Your task to perform on an android device: Search for "bose quietcomfort 35" on newegg, select the first entry, and add it to the cart. Image 0: 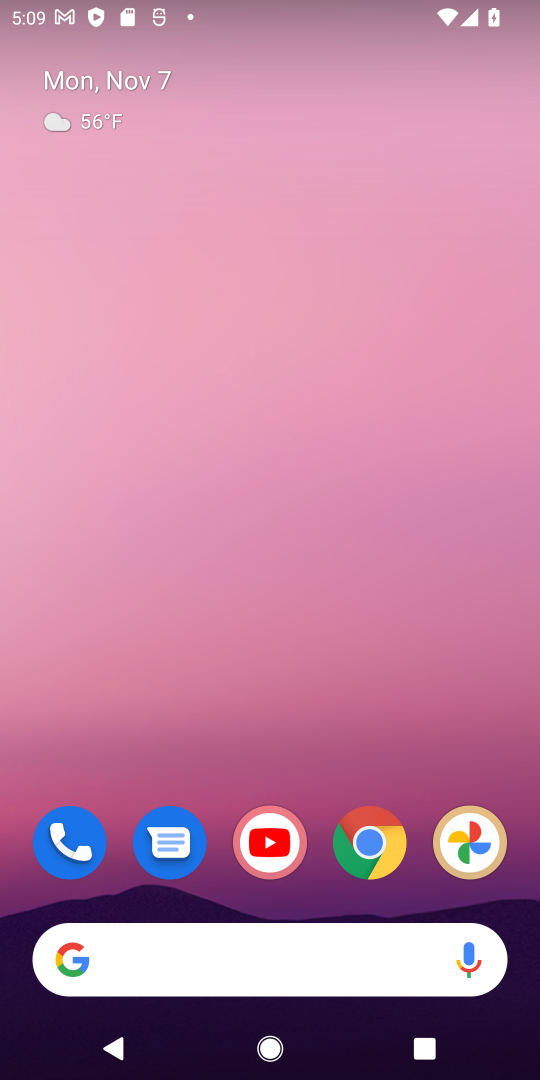
Step 0: click (374, 830)
Your task to perform on an android device: Search for "bose quietcomfort 35" on newegg, select the first entry, and add it to the cart. Image 1: 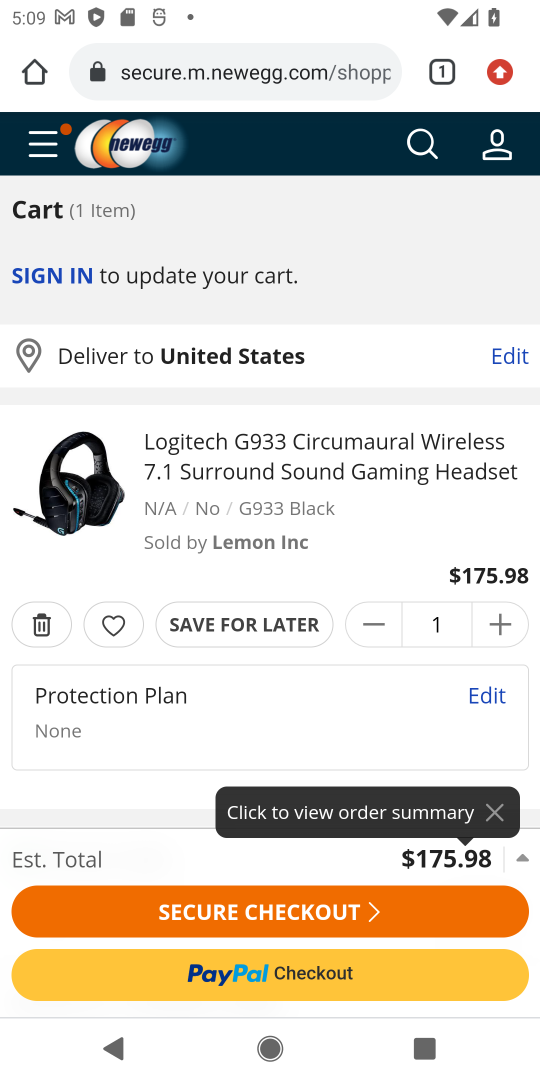
Step 1: click (276, 47)
Your task to perform on an android device: Search for "bose quietcomfort 35" on newegg, select the first entry, and add it to the cart. Image 2: 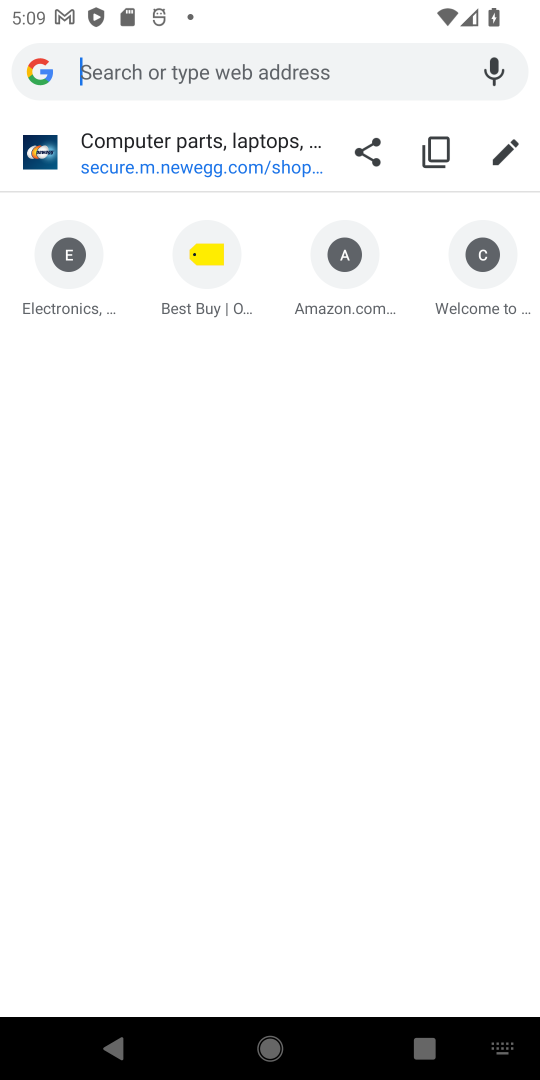
Step 2: type "newegg"
Your task to perform on an android device: Search for "bose quietcomfort 35" on newegg, select the first entry, and add it to the cart. Image 3: 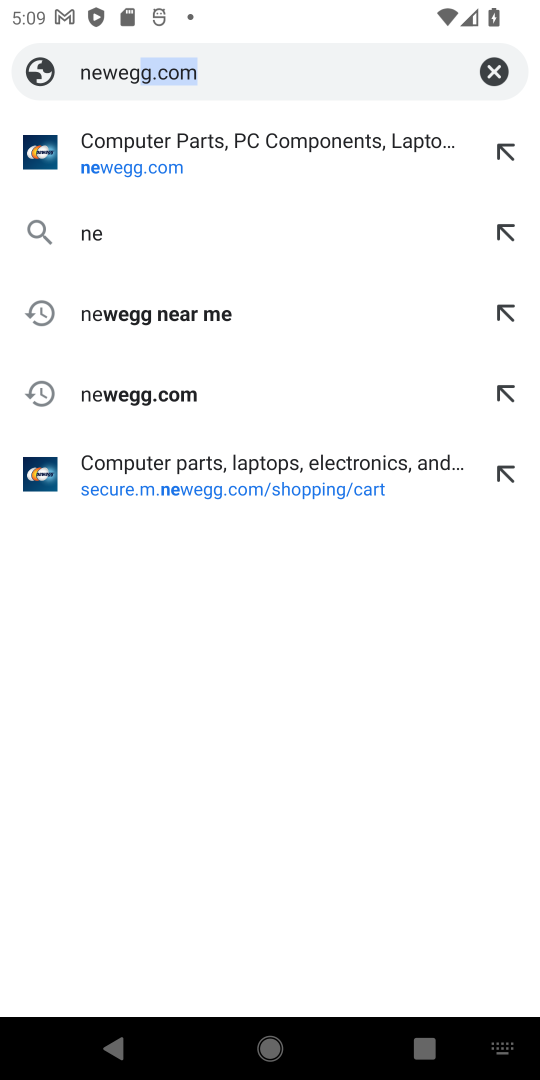
Step 3: press enter
Your task to perform on an android device: Search for "bose quietcomfort 35" on newegg, select the first entry, and add it to the cart. Image 4: 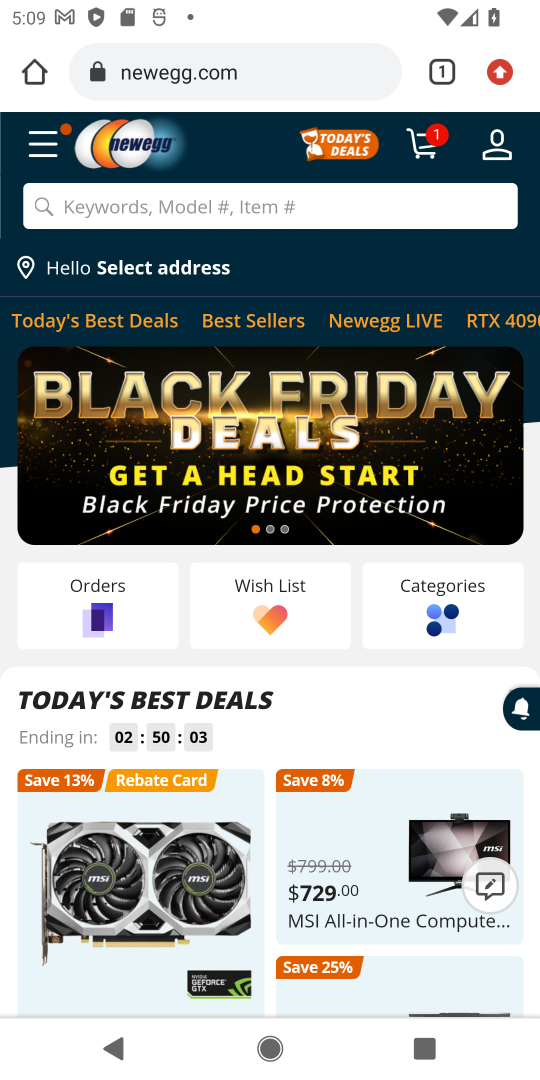
Step 4: click (164, 199)
Your task to perform on an android device: Search for "bose quietcomfort 35" on newegg, select the first entry, and add it to the cart. Image 5: 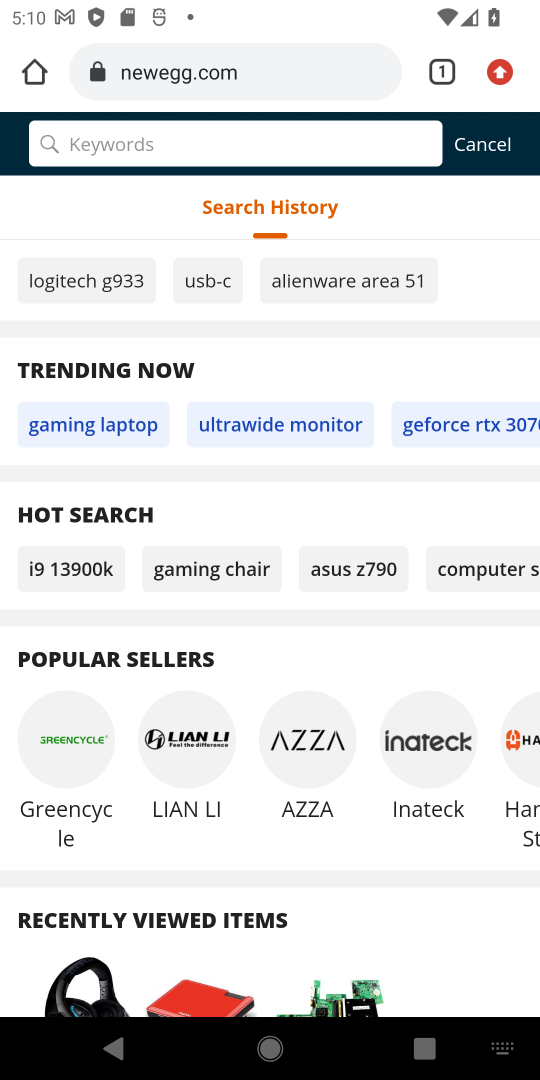
Step 5: type "bose quietcomfort 35"
Your task to perform on an android device: Search for "bose quietcomfort 35" on newegg, select the first entry, and add it to the cart. Image 6: 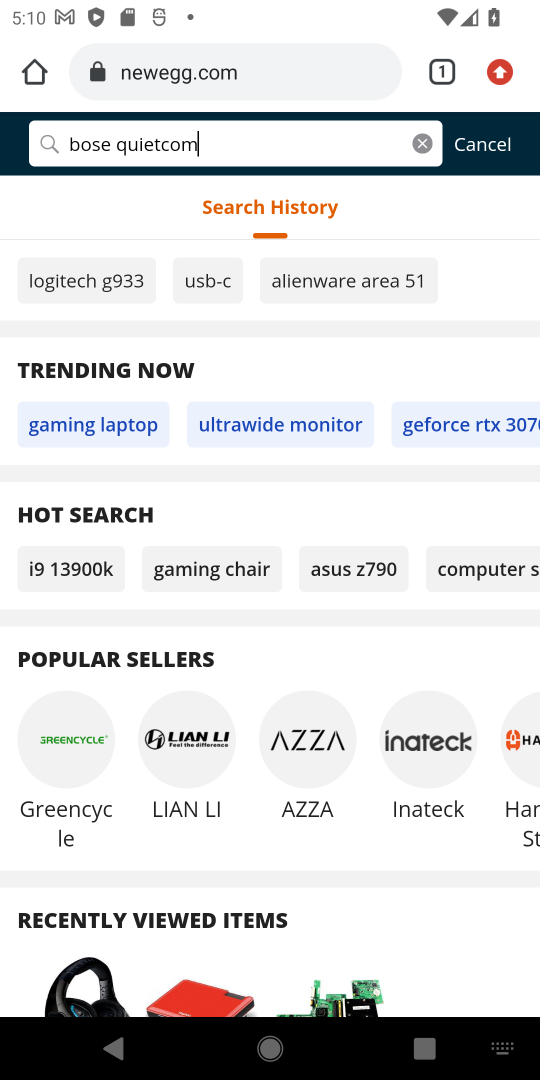
Step 6: press enter
Your task to perform on an android device: Search for "bose quietcomfort 35" on newegg, select the first entry, and add it to the cart. Image 7: 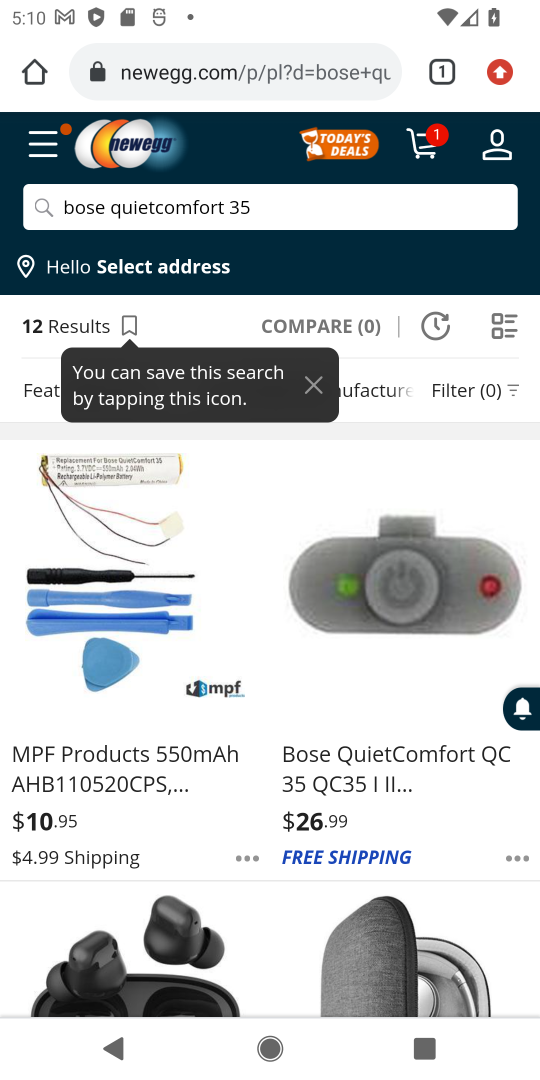
Step 7: task complete